Your task to perform on an android device: Do I have any events tomorrow? Image 0: 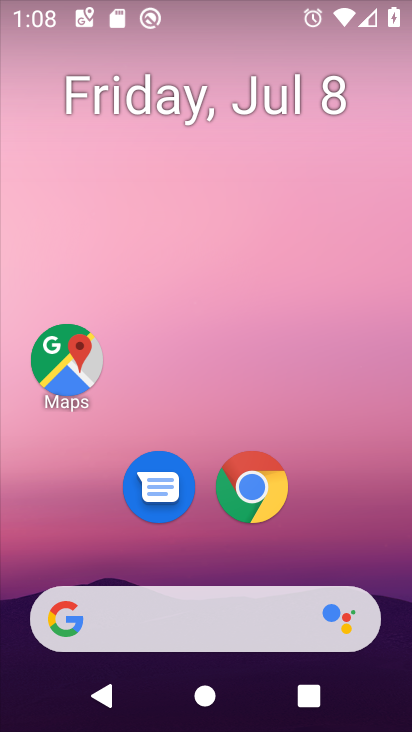
Step 0: drag from (364, 525) to (318, 100)
Your task to perform on an android device: Do I have any events tomorrow? Image 1: 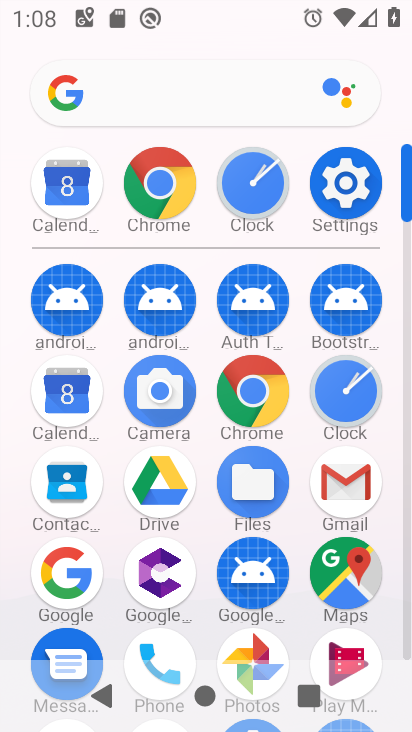
Step 1: click (81, 394)
Your task to perform on an android device: Do I have any events tomorrow? Image 2: 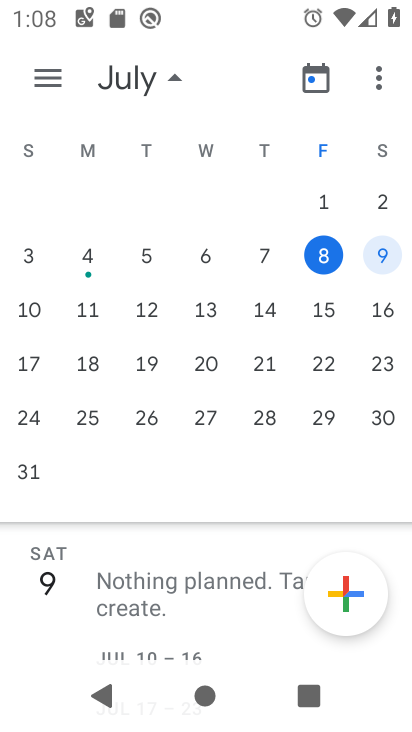
Step 2: task complete